Your task to perform on an android device: turn off location history Image 0: 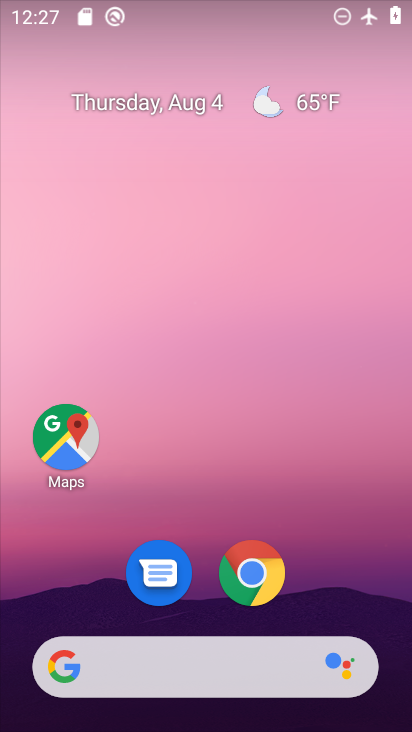
Step 0: drag from (340, 486) to (274, 45)
Your task to perform on an android device: turn off location history Image 1: 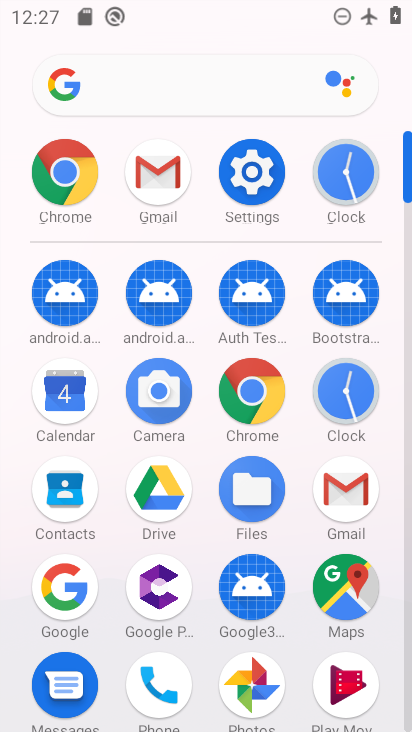
Step 1: click (241, 167)
Your task to perform on an android device: turn off location history Image 2: 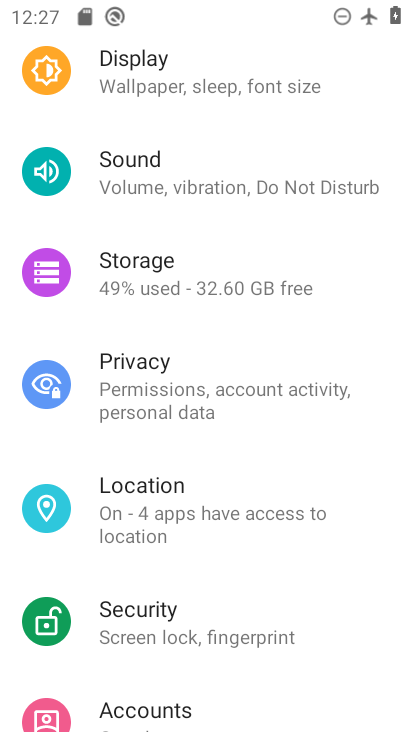
Step 2: click (194, 532)
Your task to perform on an android device: turn off location history Image 3: 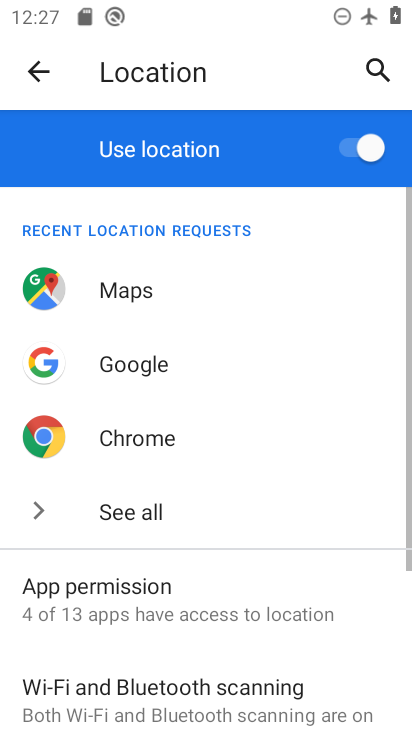
Step 3: drag from (214, 646) to (240, 321)
Your task to perform on an android device: turn off location history Image 4: 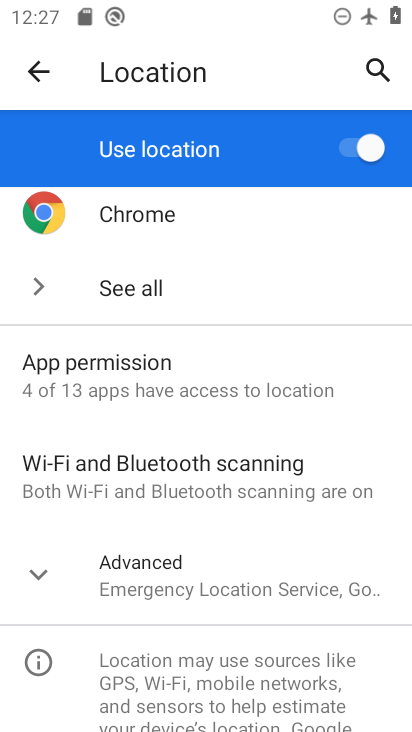
Step 4: click (194, 580)
Your task to perform on an android device: turn off location history Image 5: 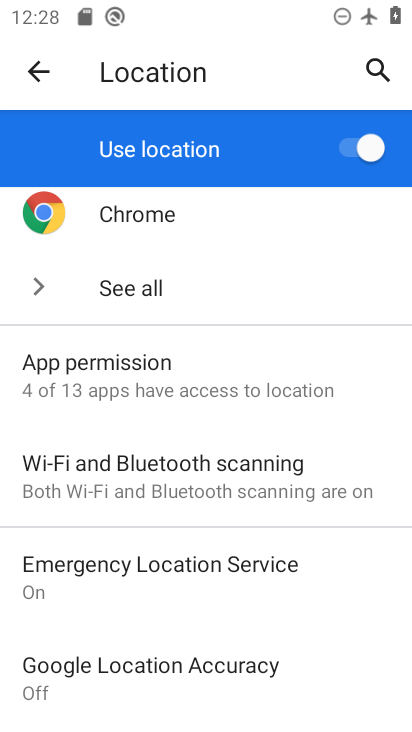
Step 5: drag from (348, 650) to (361, 287)
Your task to perform on an android device: turn off location history Image 6: 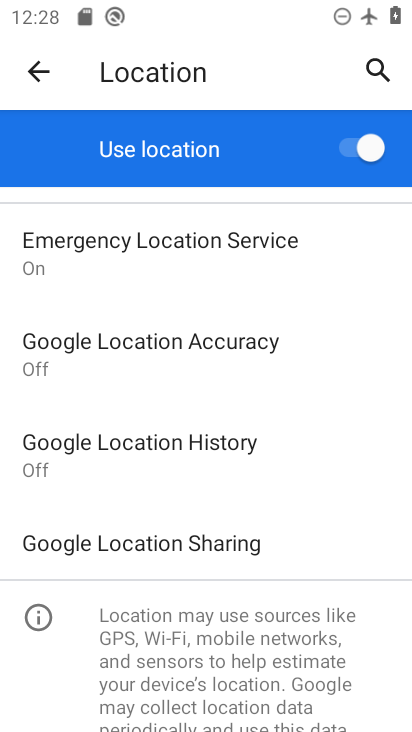
Step 6: click (258, 440)
Your task to perform on an android device: turn off location history Image 7: 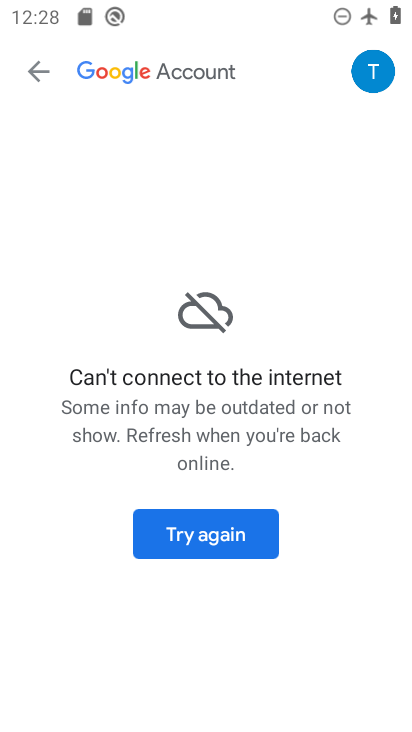
Step 7: task complete